Your task to perform on an android device: What is the news today? Image 0: 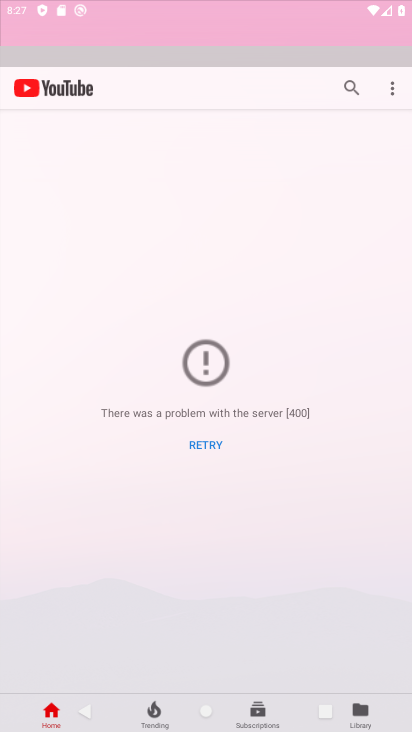
Step 0: click (321, 71)
Your task to perform on an android device: What is the news today? Image 1: 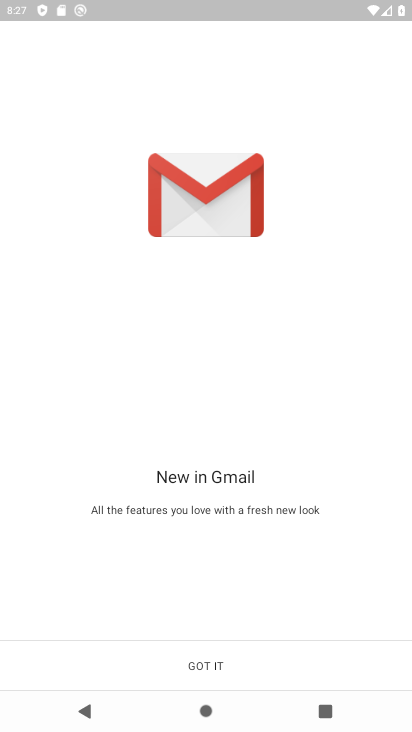
Step 1: press home button
Your task to perform on an android device: What is the news today? Image 2: 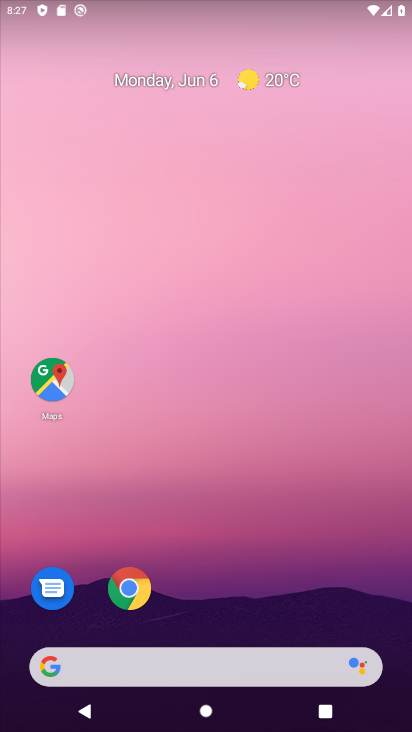
Step 2: drag from (282, 454) to (338, 11)
Your task to perform on an android device: What is the news today? Image 3: 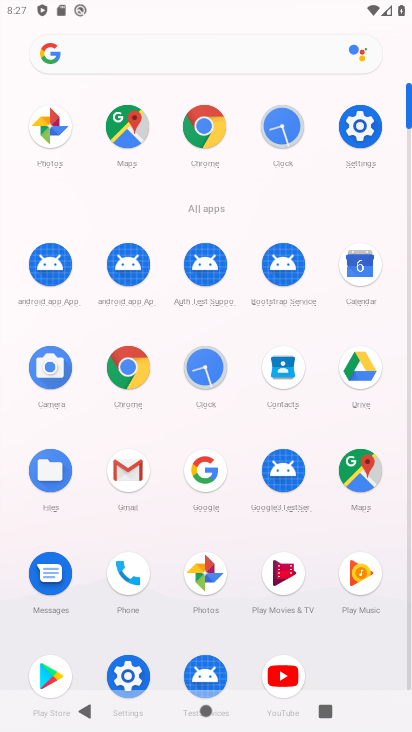
Step 3: click (202, 134)
Your task to perform on an android device: What is the news today? Image 4: 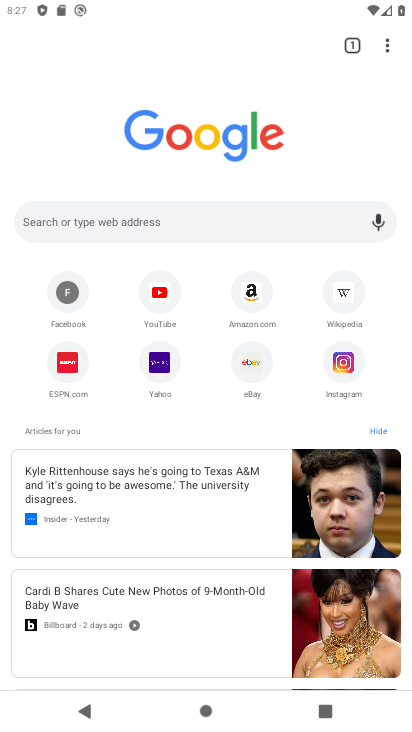
Step 4: task complete